Your task to perform on an android device: add a contact Image 0: 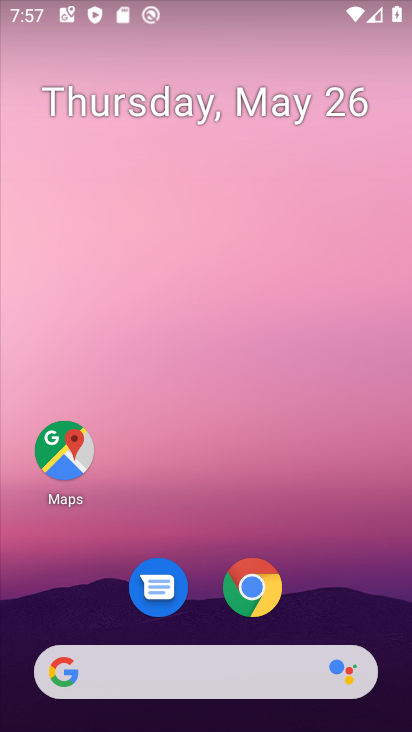
Step 0: drag from (188, 617) to (191, 235)
Your task to perform on an android device: add a contact Image 1: 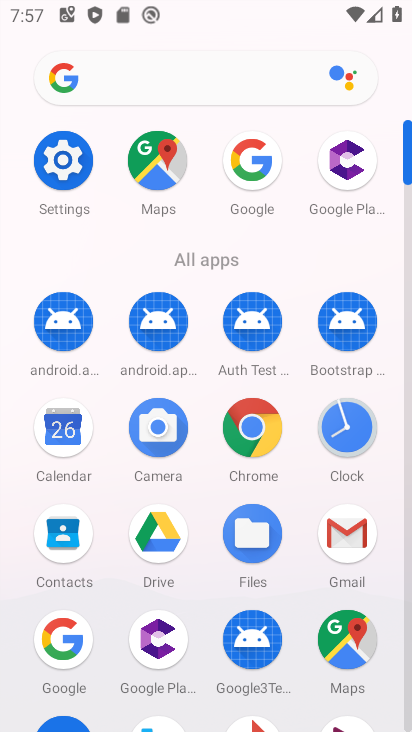
Step 1: click (76, 556)
Your task to perform on an android device: add a contact Image 2: 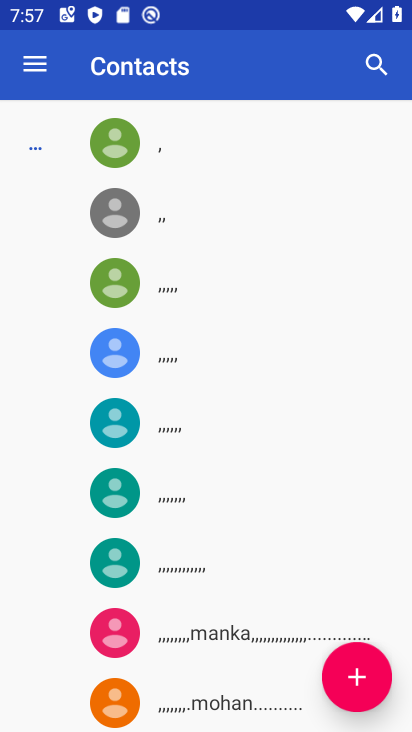
Step 2: click (373, 667)
Your task to perform on an android device: add a contact Image 3: 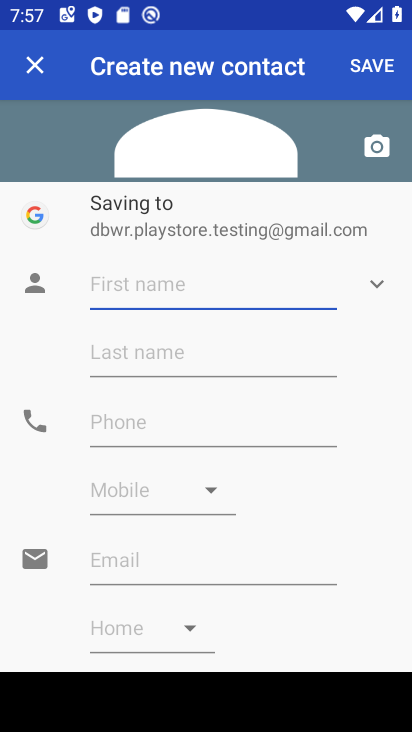
Step 3: type "gfgh"
Your task to perform on an android device: add a contact Image 4: 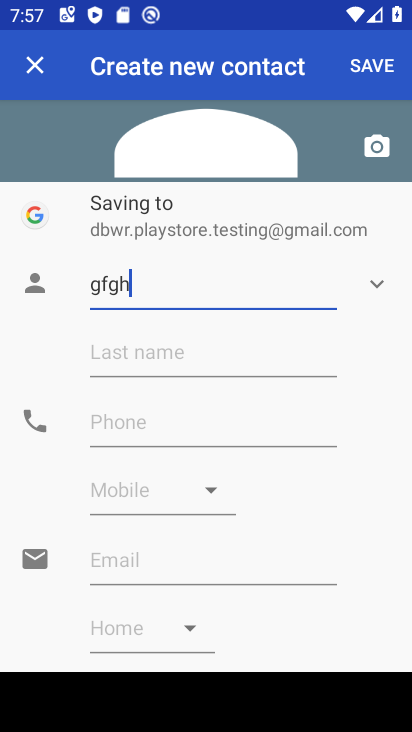
Step 4: click (185, 432)
Your task to perform on an android device: add a contact Image 5: 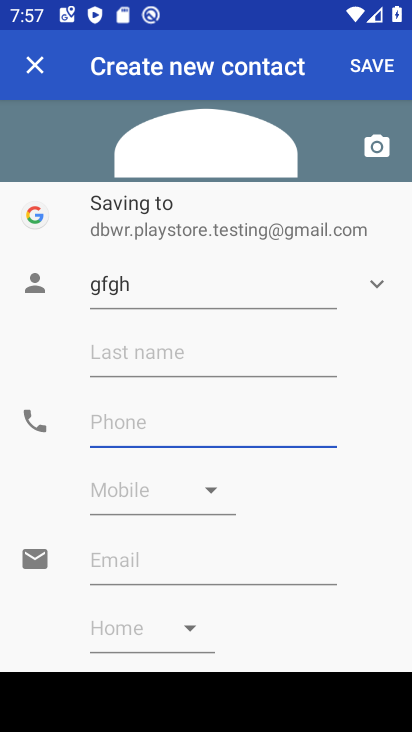
Step 5: type "976867658"
Your task to perform on an android device: add a contact Image 6: 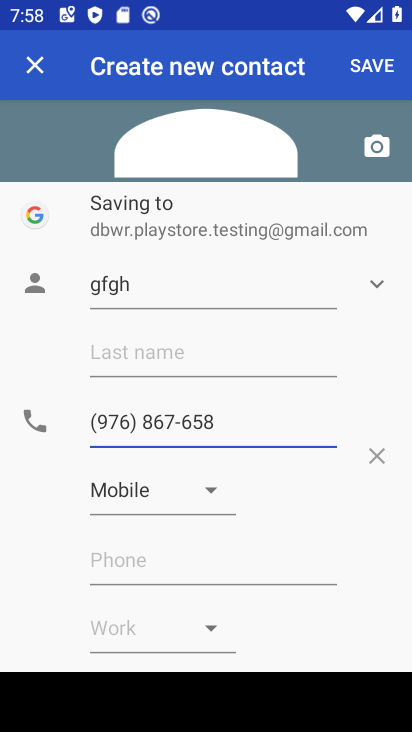
Step 6: click (366, 68)
Your task to perform on an android device: add a contact Image 7: 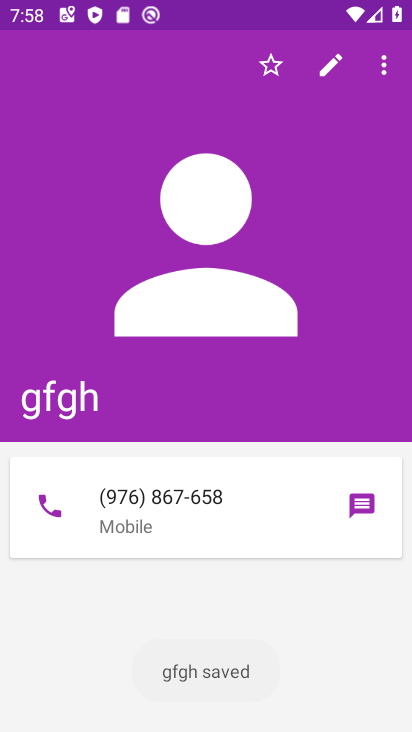
Step 7: task complete